Your task to perform on an android device: toggle data saver in the chrome app Image 0: 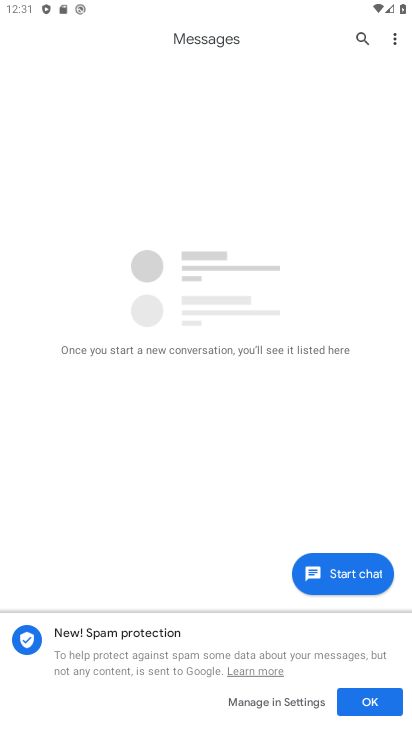
Step 0: press home button
Your task to perform on an android device: toggle data saver in the chrome app Image 1: 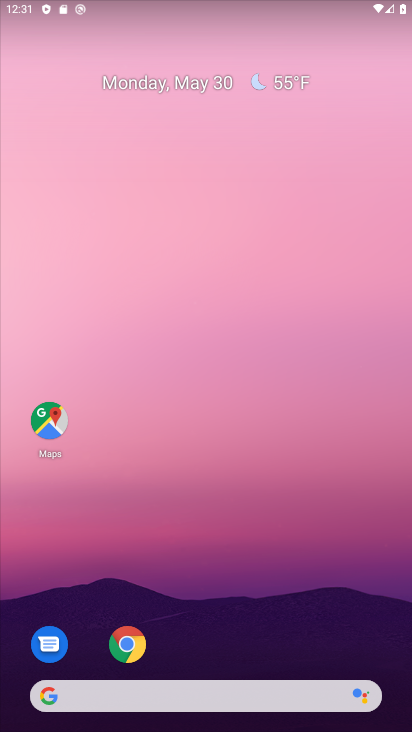
Step 1: click (121, 642)
Your task to perform on an android device: toggle data saver in the chrome app Image 2: 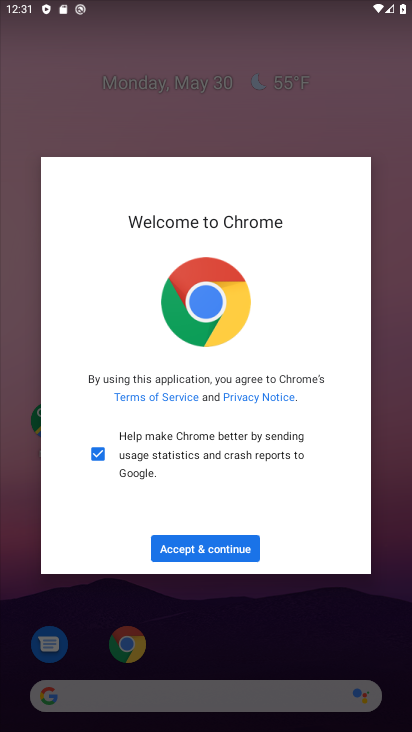
Step 2: click (232, 538)
Your task to perform on an android device: toggle data saver in the chrome app Image 3: 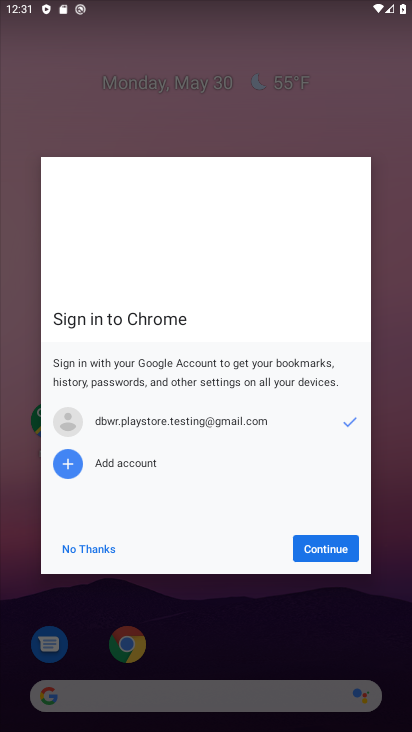
Step 3: click (311, 550)
Your task to perform on an android device: toggle data saver in the chrome app Image 4: 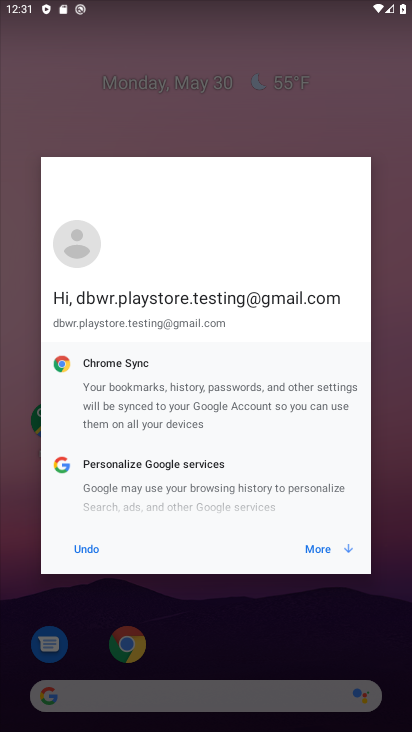
Step 4: click (311, 550)
Your task to perform on an android device: toggle data saver in the chrome app Image 5: 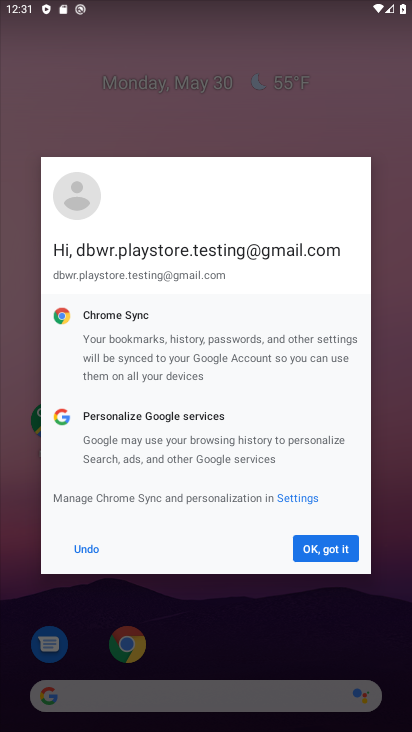
Step 5: click (311, 550)
Your task to perform on an android device: toggle data saver in the chrome app Image 6: 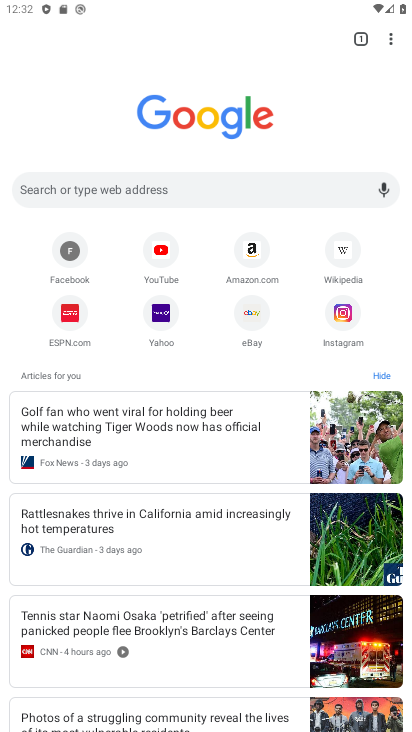
Step 6: click (391, 43)
Your task to perform on an android device: toggle data saver in the chrome app Image 7: 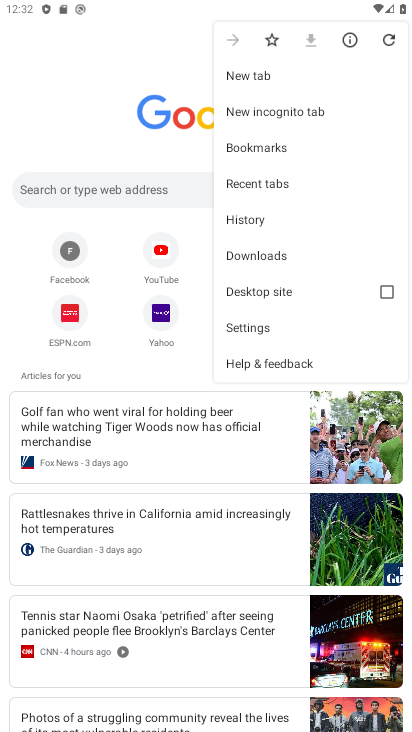
Step 7: click (272, 327)
Your task to perform on an android device: toggle data saver in the chrome app Image 8: 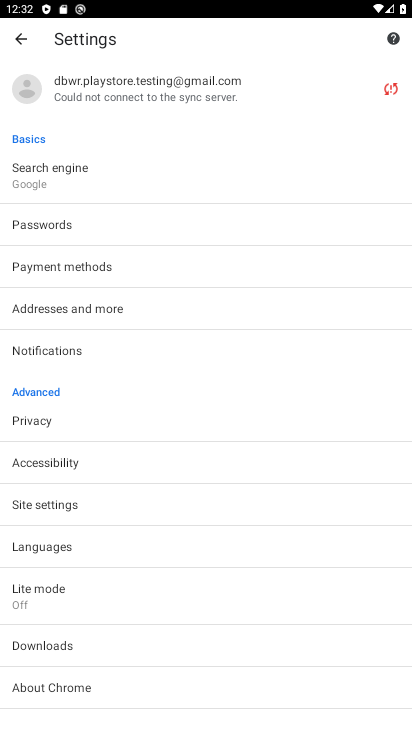
Step 8: click (176, 579)
Your task to perform on an android device: toggle data saver in the chrome app Image 9: 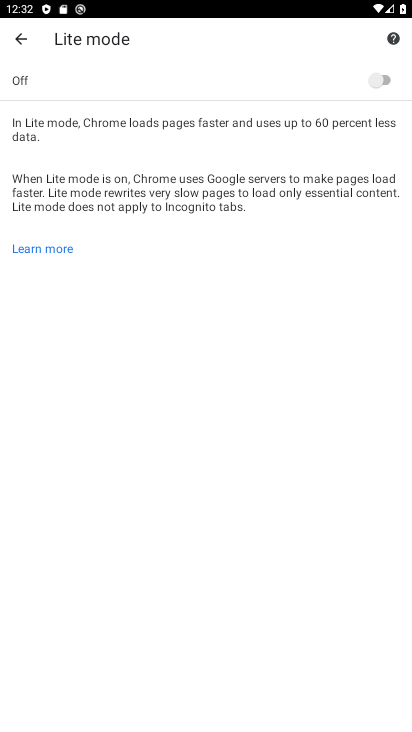
Step 9: click (371, 86)
Your task to perform on an android device: toggle data saver in the chrome app Image 10: 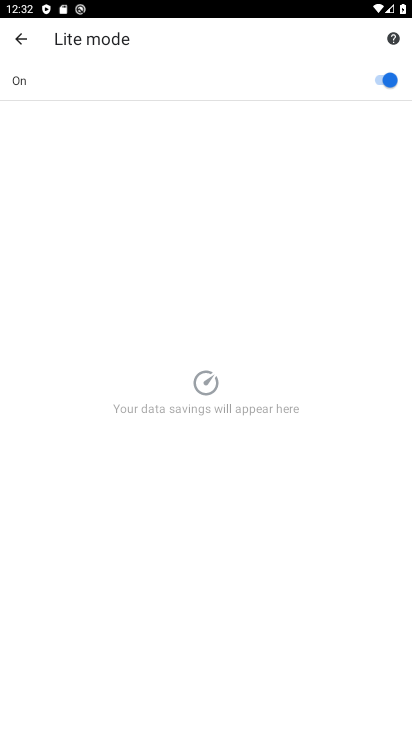
Step 10: task complete